Your task to perform on an android device: Add corsair k70 to the cart on ebay, then select checkout. Image 0: 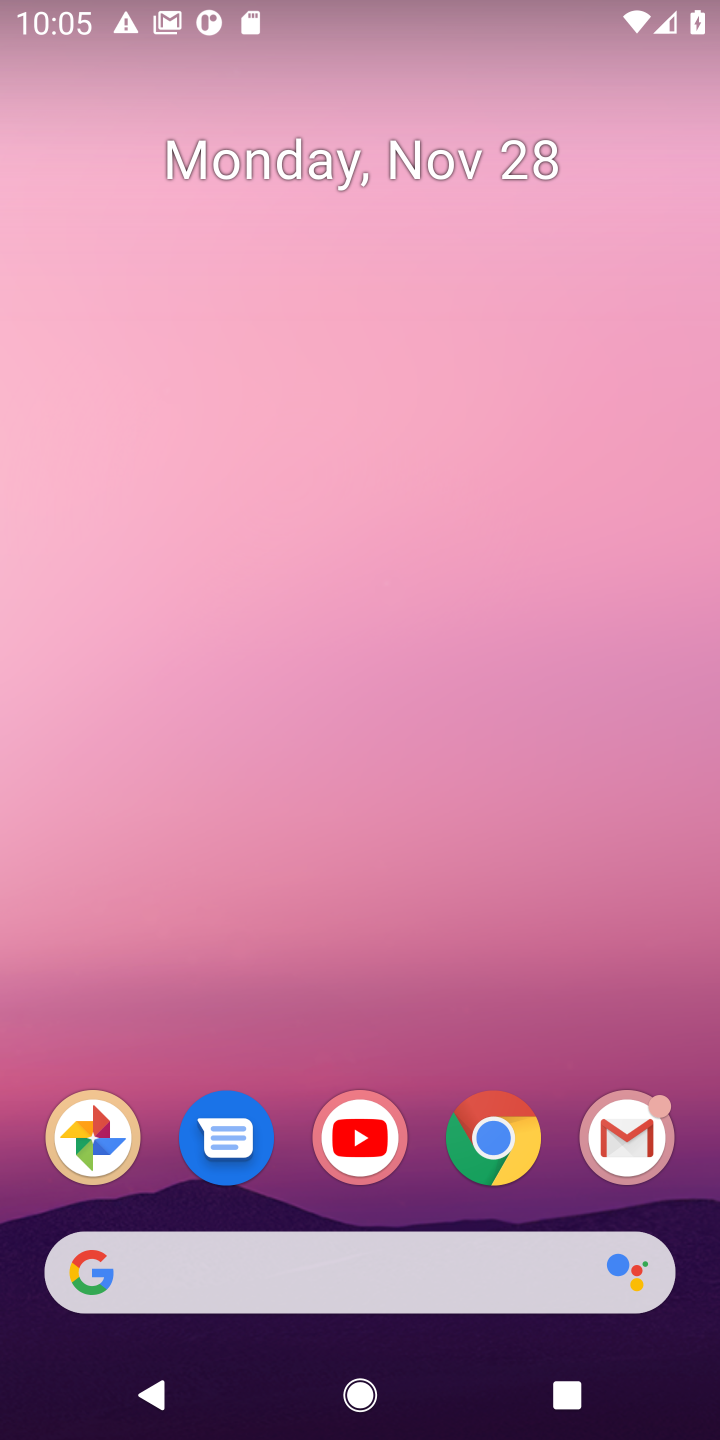
Step 0: click (501, 1153)
Your task to perform on an android device: Add corsair k70 to the cart on ebay, then select checkout. Image 1: 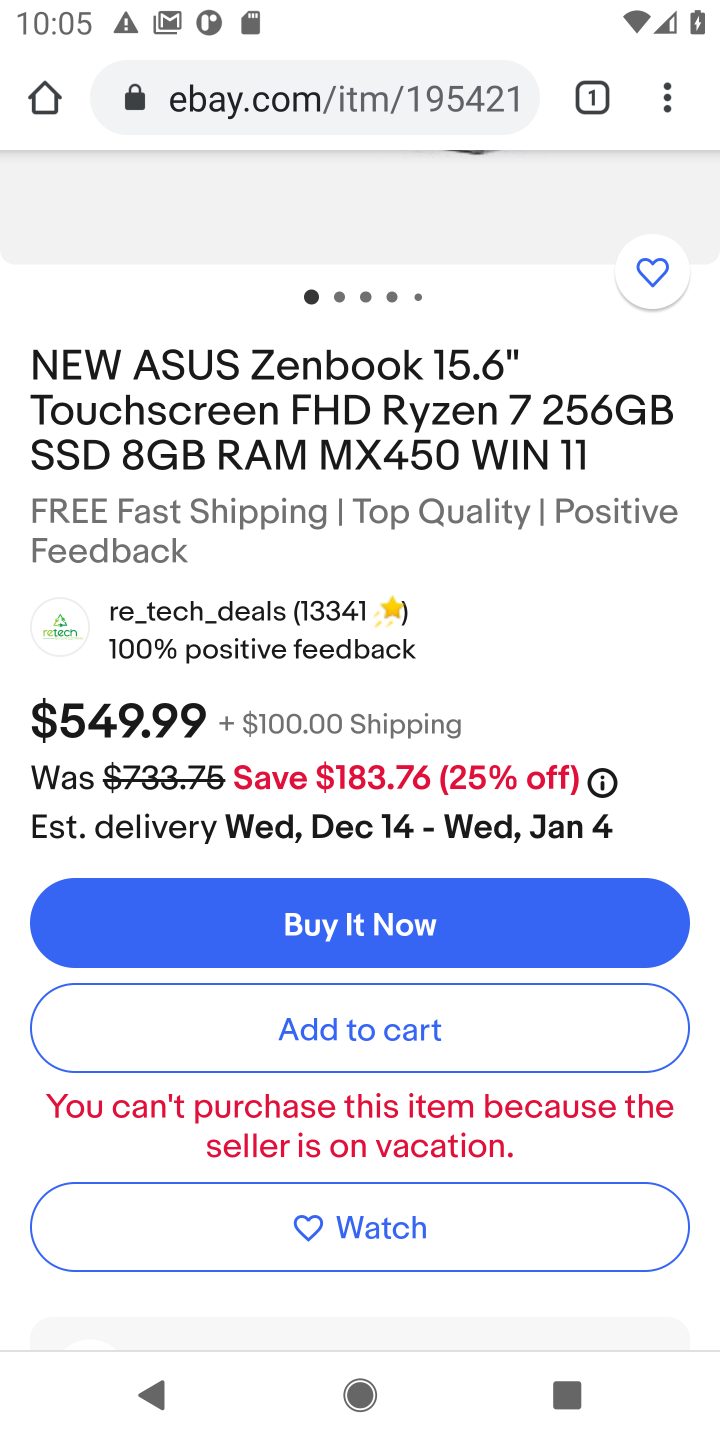
Step 1: drag from (590, 165) to (578, 686)
Your task to perform on an android device: Add corsair k70 to the cart on ebay, then select checkout. Image 2: 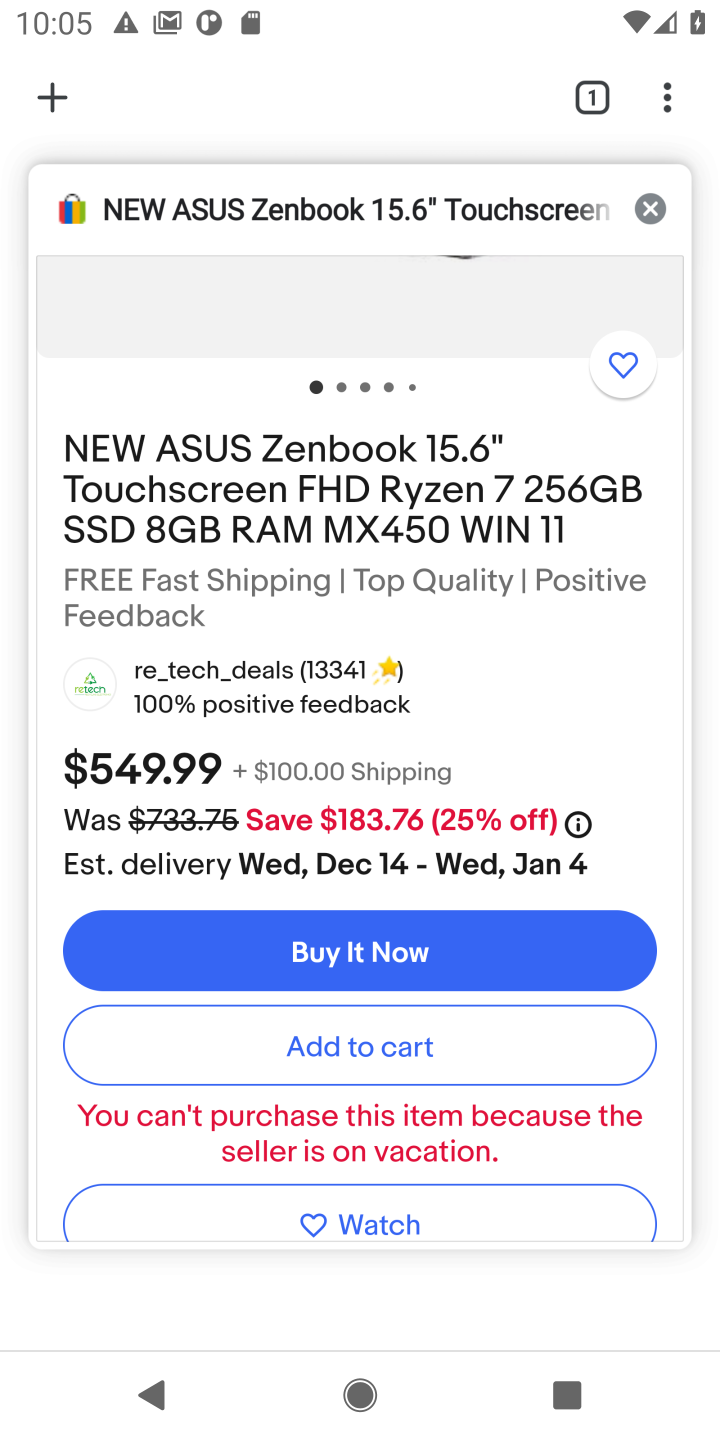
Step 2: drag from (573, 633) to (523, 351)
Your task to perform on an android device: Add corsair k70 to the cart on ebay, then select checkout. Image 3: 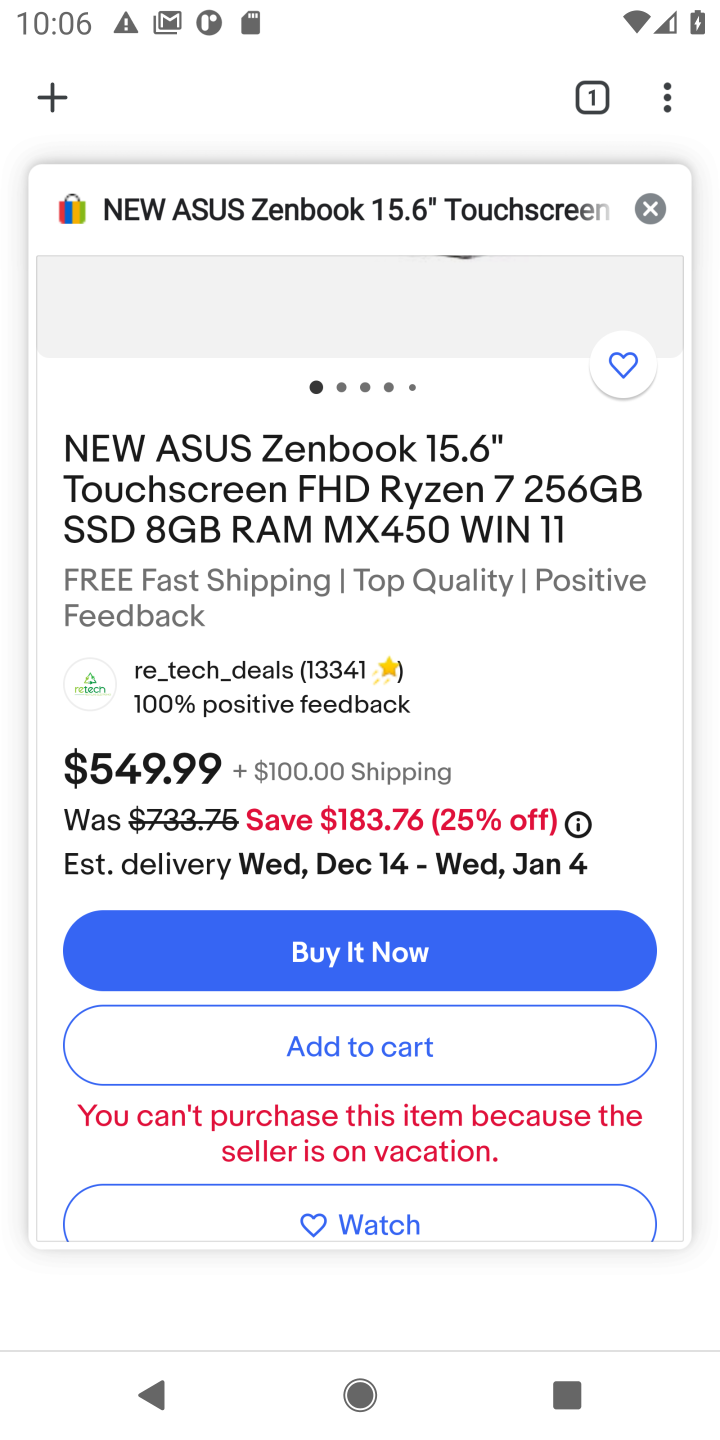
Step 3: click (653, 203)
Your task to perform on an android device: Add corsair k70 to the cart on ebay, then select checkout. Image 4: 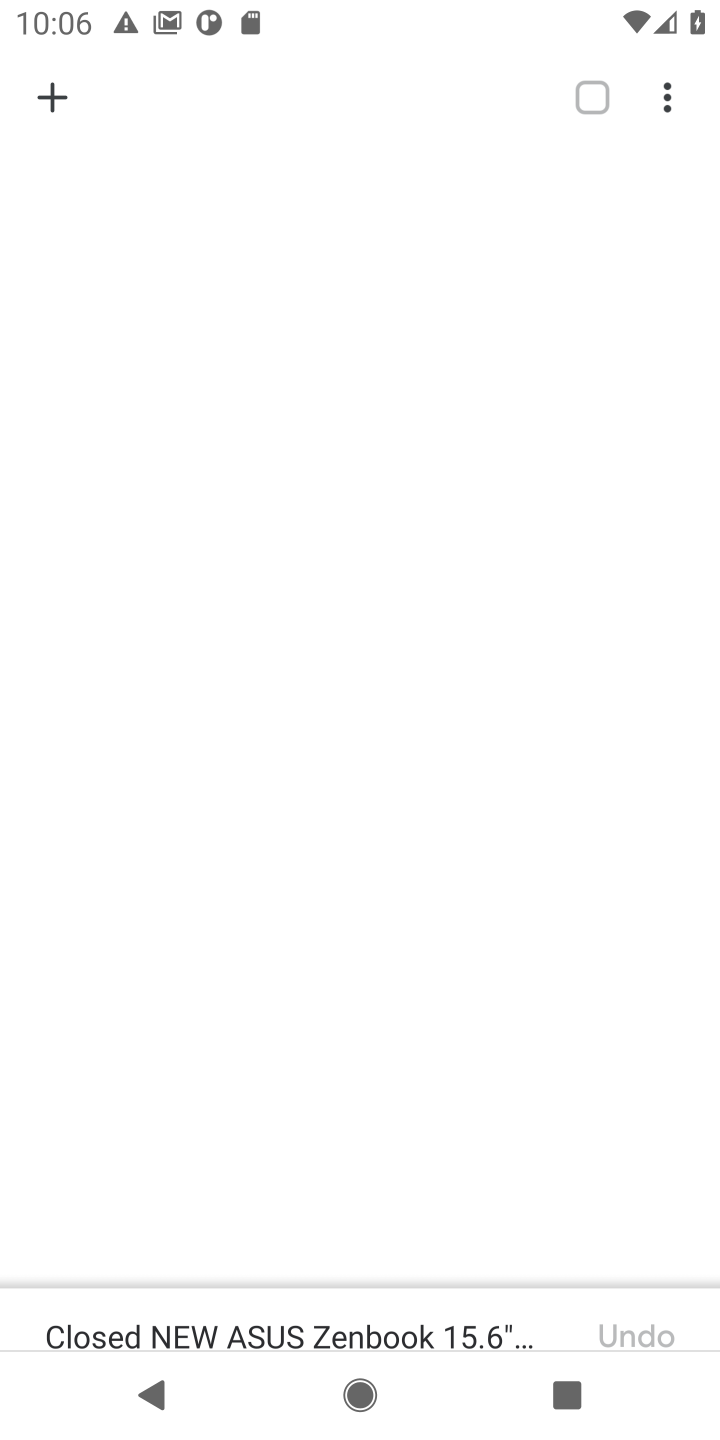
Step 4: click (63, 99)
Your task to perform on an android device: Add corsair k70 to the cart on ebay, then select checkout. Image 5: 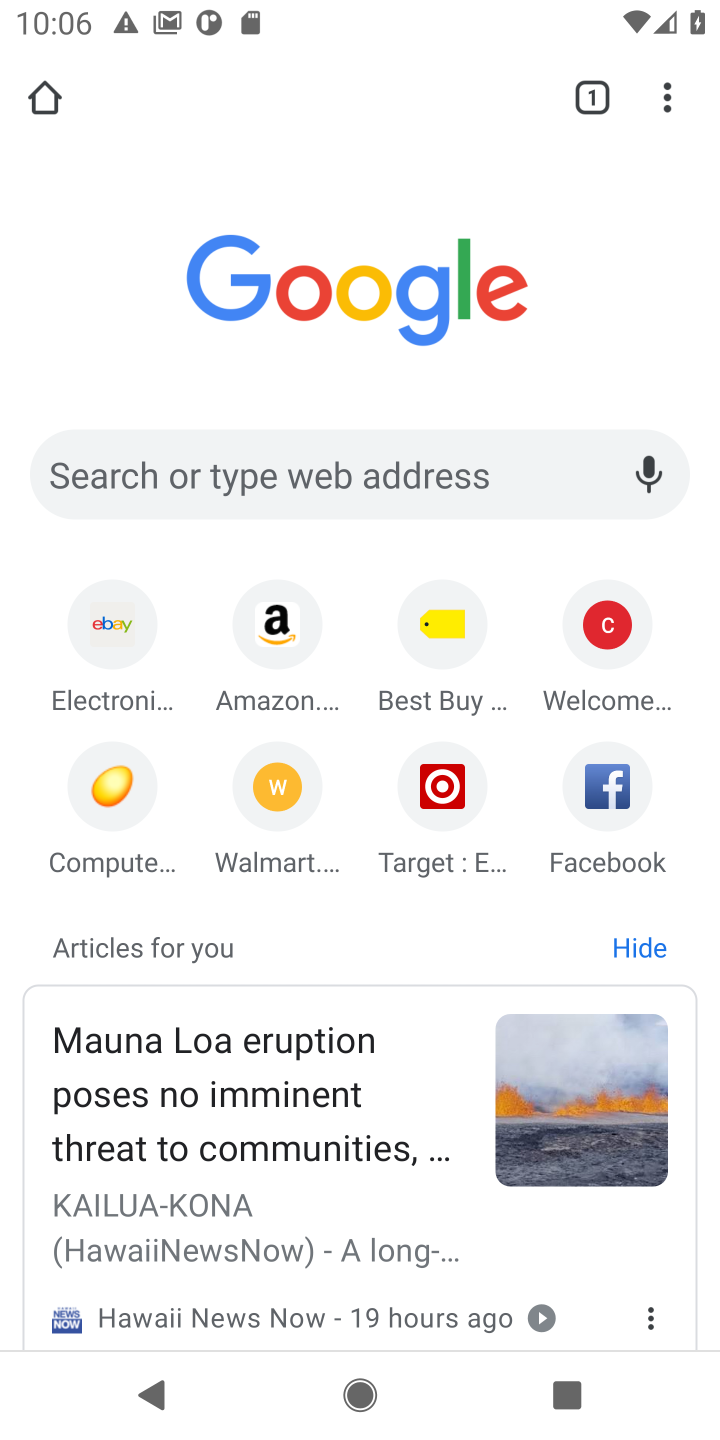
Step 5: click (248, 468)
Your task to perform on an android device: Add corsair k70 to the cart on ebay, then select checkout. Image 6: 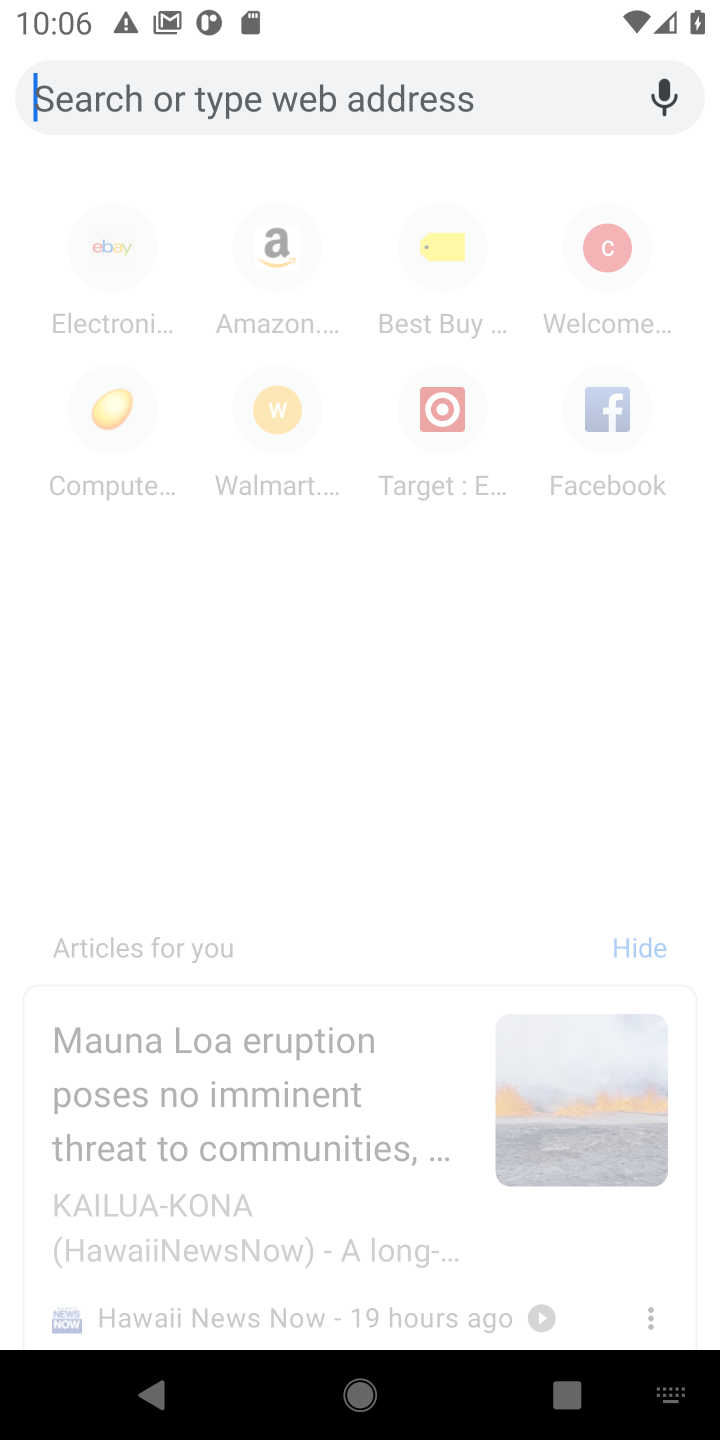
Step 6: click (115, 245)
Your task to perform on an android device: Add corsair k70 to the cart on ebay, then select checkout. Image 7: 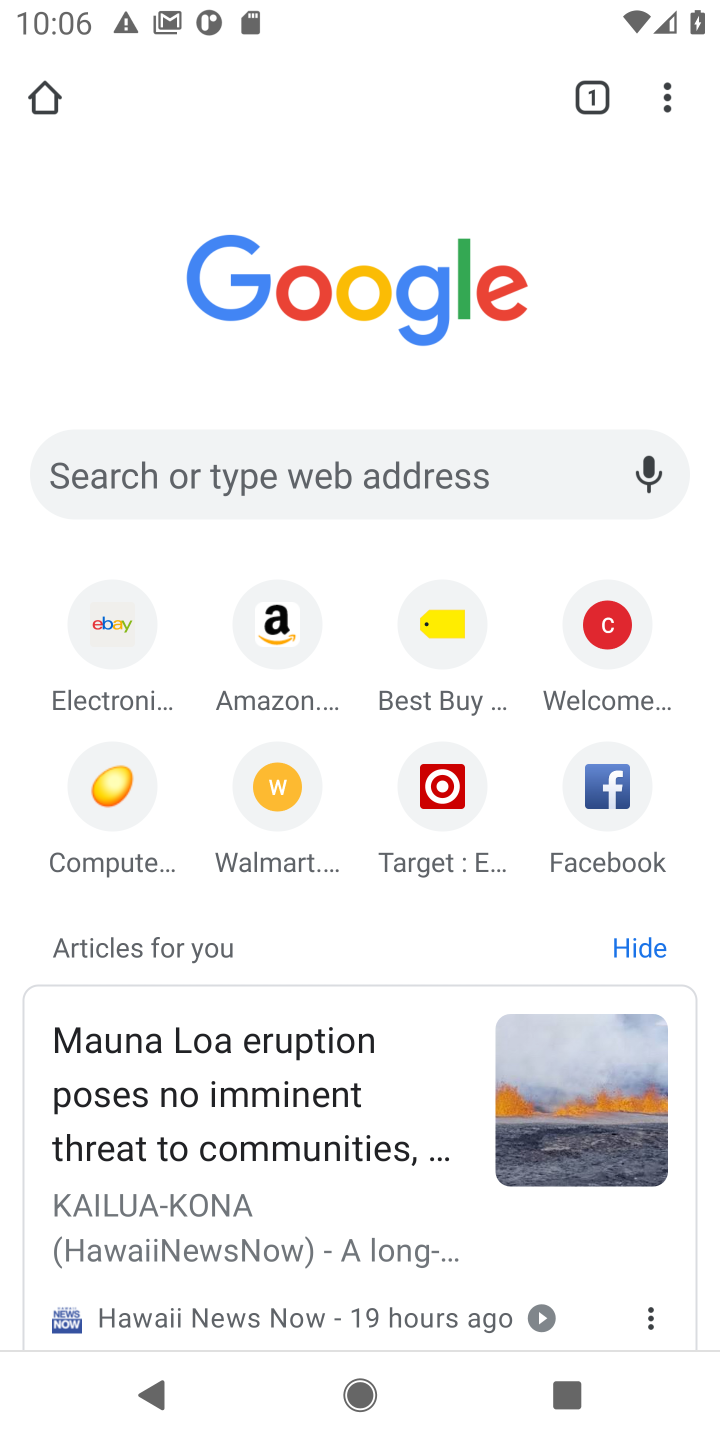
Step 7: click (110, 619)
Your task to perform on an android device: Add corsair k70 to the cart on ebay, then select checkout. Image 8: 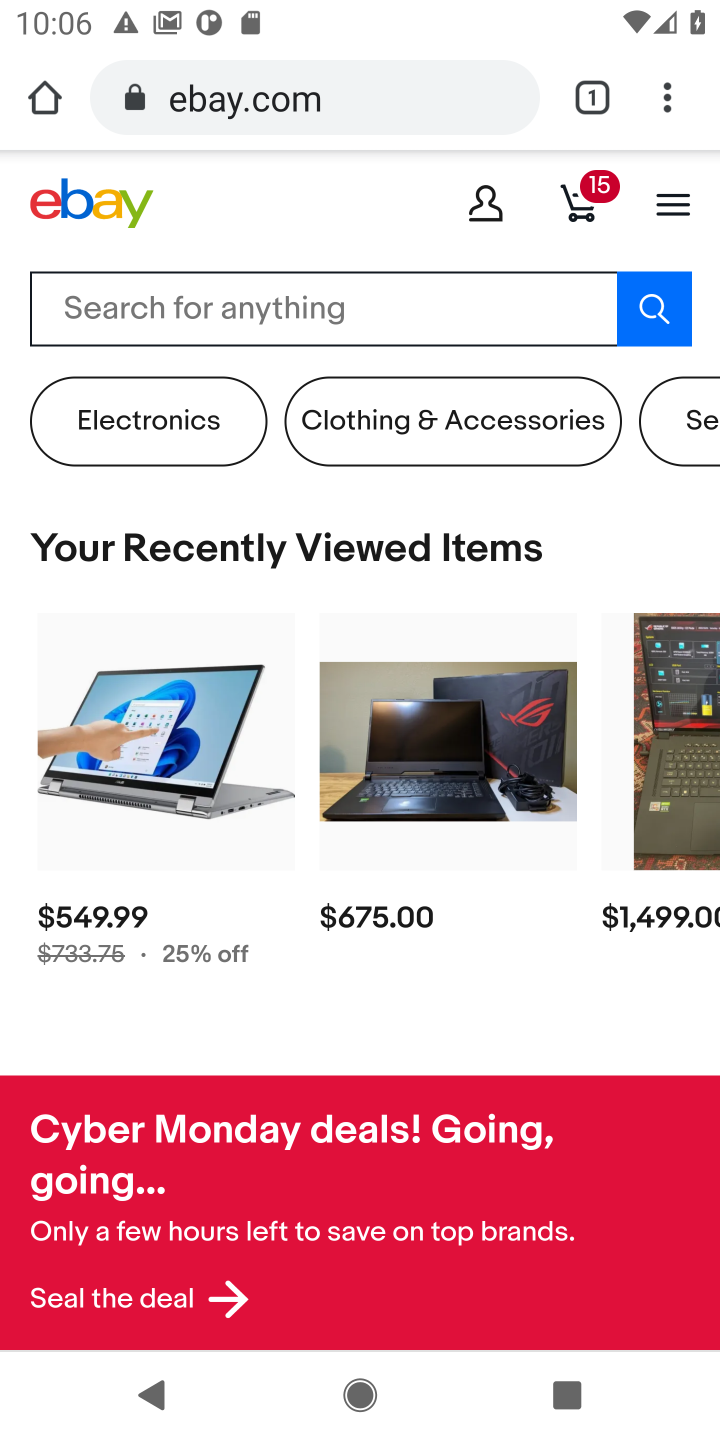
Step 8: click (167, 290)
Your task to perform on an android device: Add corsair k70 to the cart on ebay, then select checkout. Image 9: 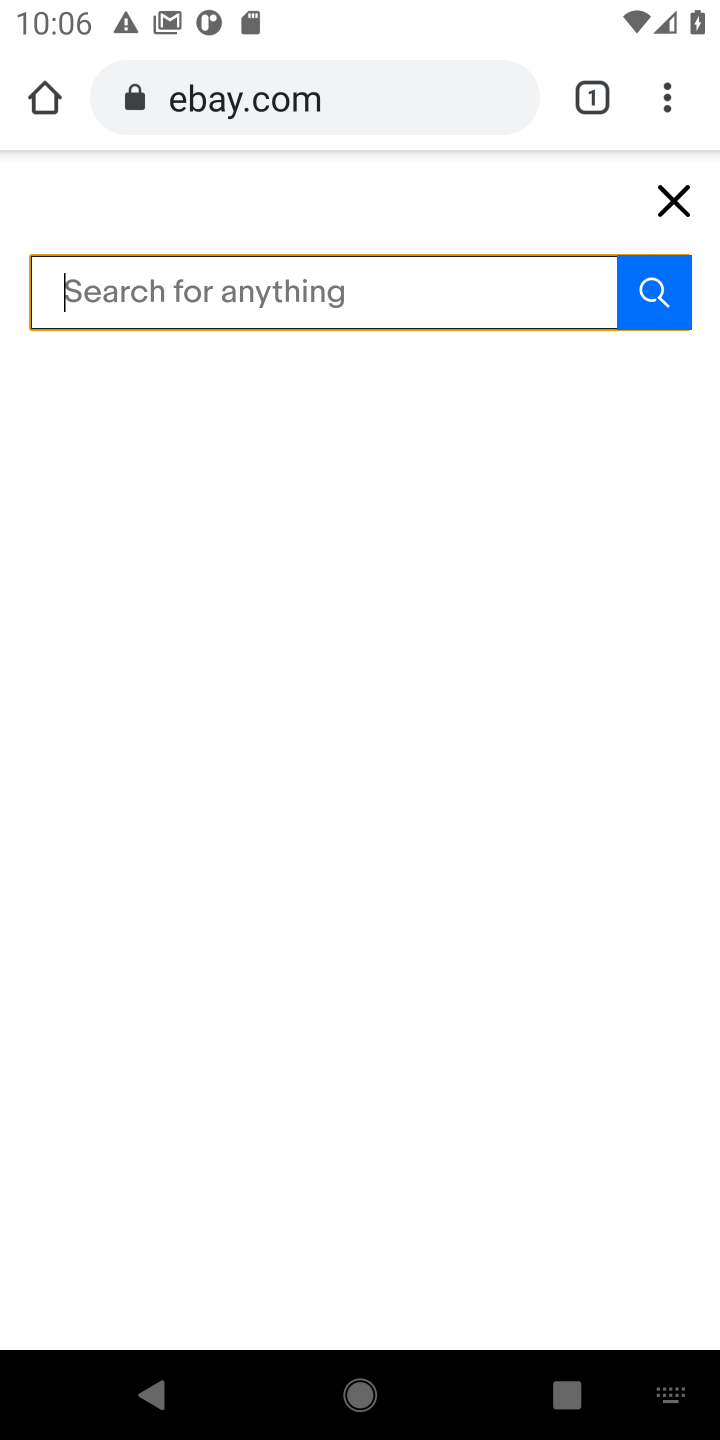
Step 9: type "corsair k70"
Your task to perform on an android device: Add corsair k70 to the cart on ebay, then select checkout. Image 10: 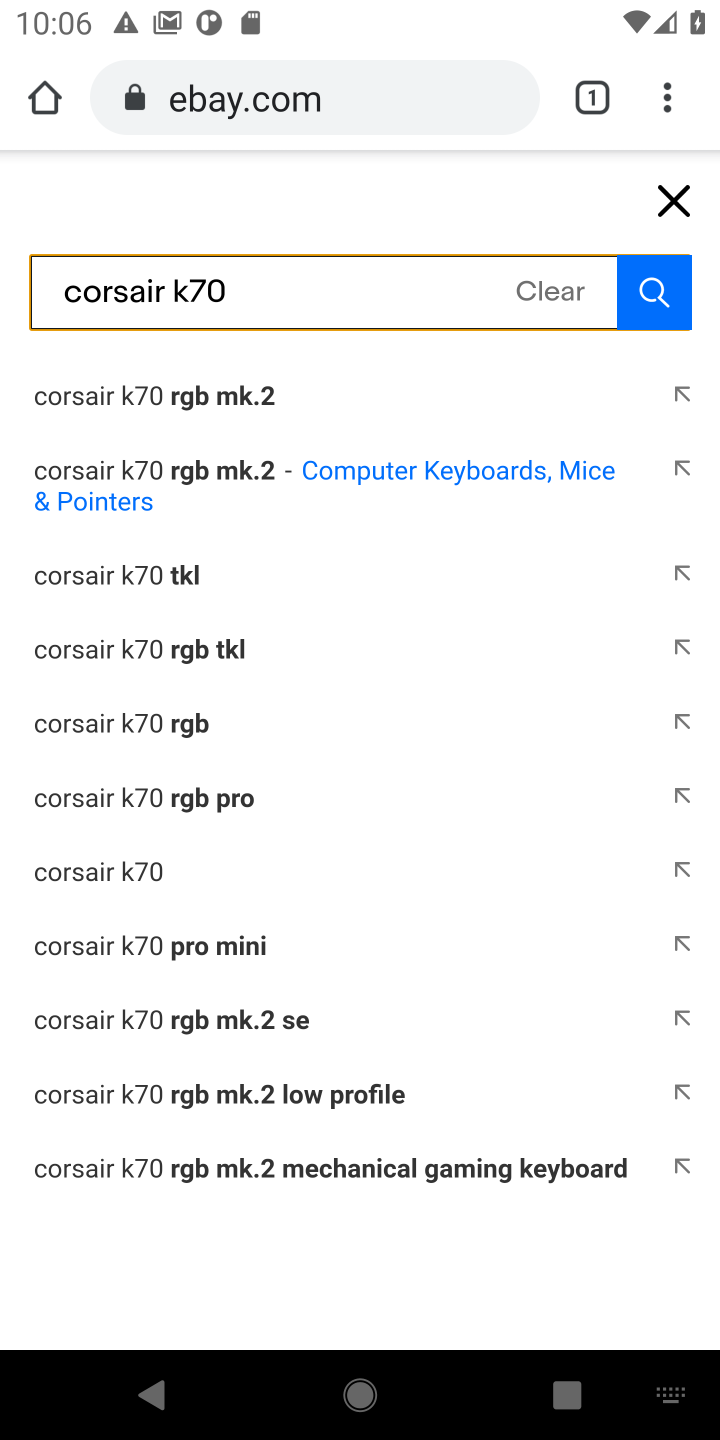
Step 10: click (91, 867)
Your task to perform on an android device: Add corsair k70 to the cart on ebay, then select checkout. Image 11: 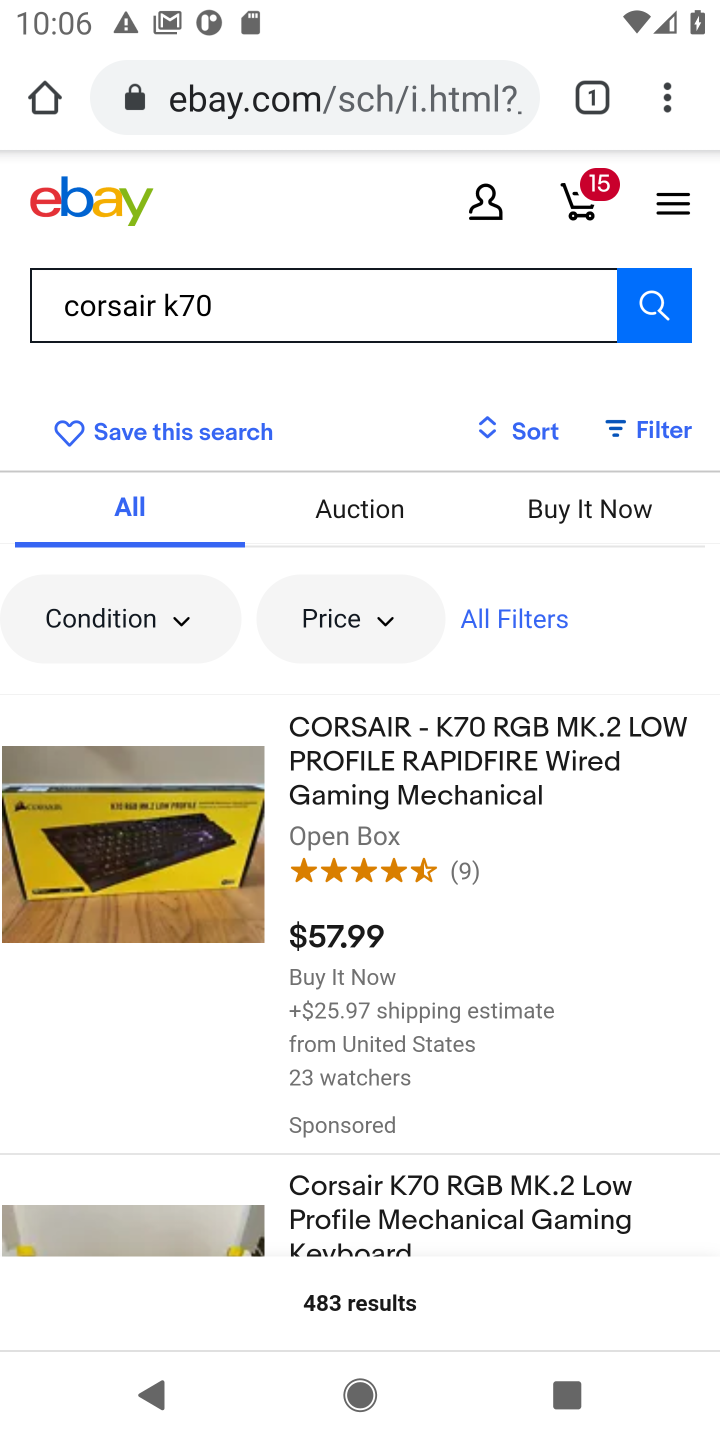
Step 11: click (397, 792)
Your task to perform on an android device: Add corsair k70 to the cart on ebay, then select checkout. Image 12: 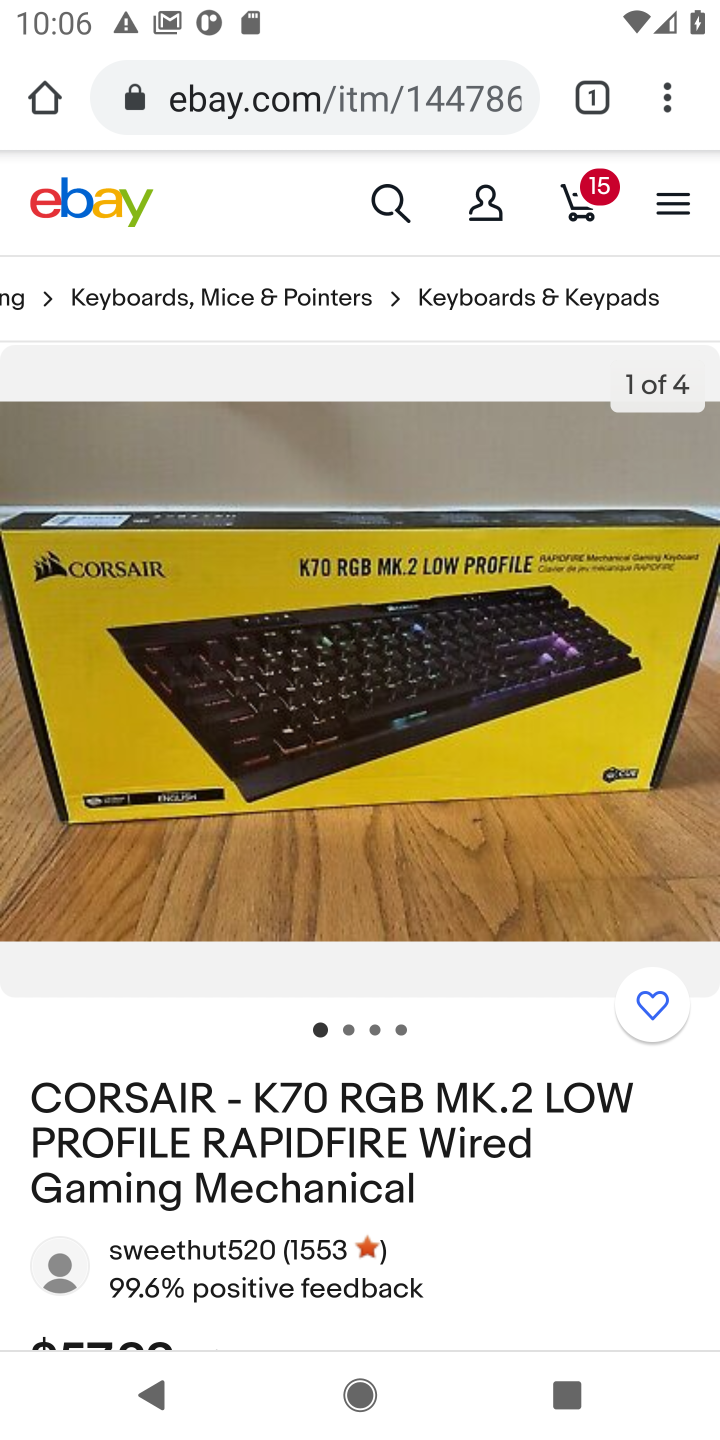
Step 12: drag from (627, 1049) to (585, 465)
Your task to perform on an android device: Add corsair k70 to the cart on ebay, then select checkout. Image 13: 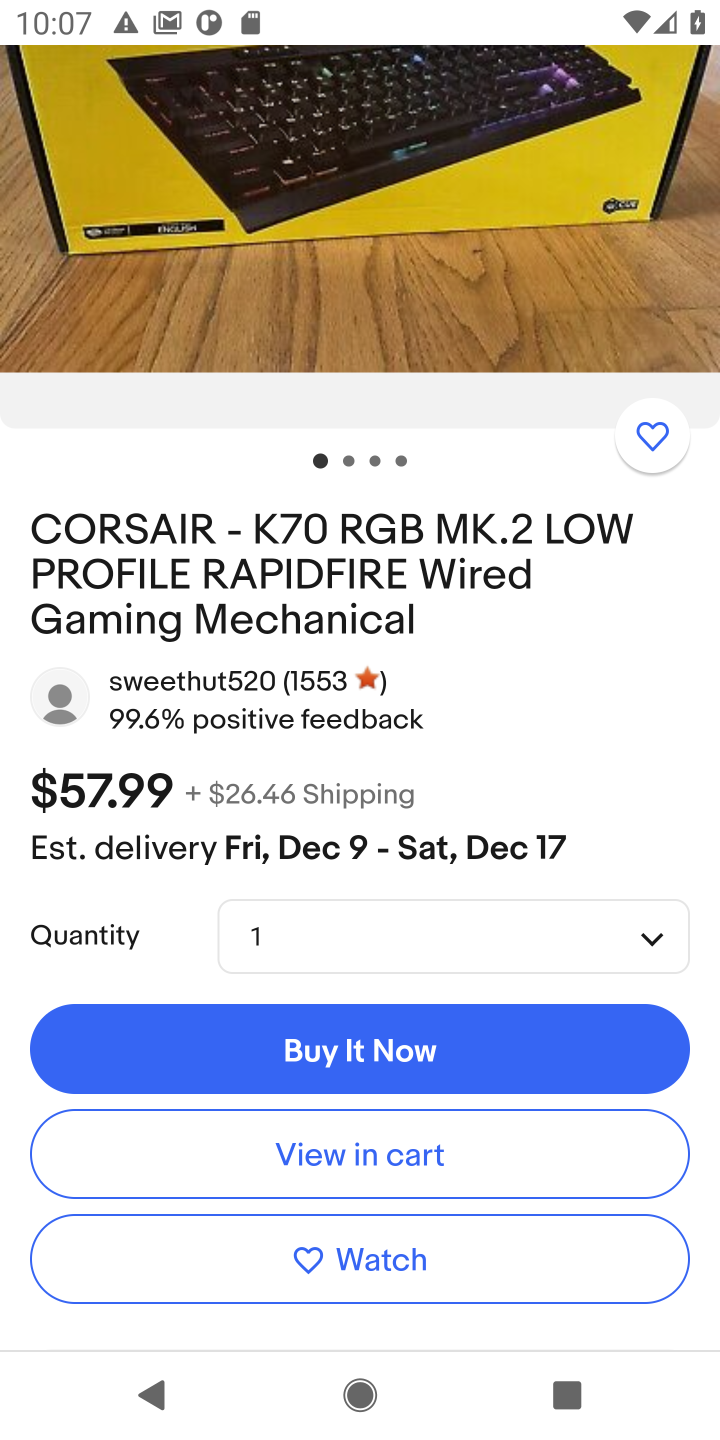
Step 13: click (353, 1157)
Your task to perform on an android device: Add corsair k70 to the cart on ebay, then select checkout. Image 14: 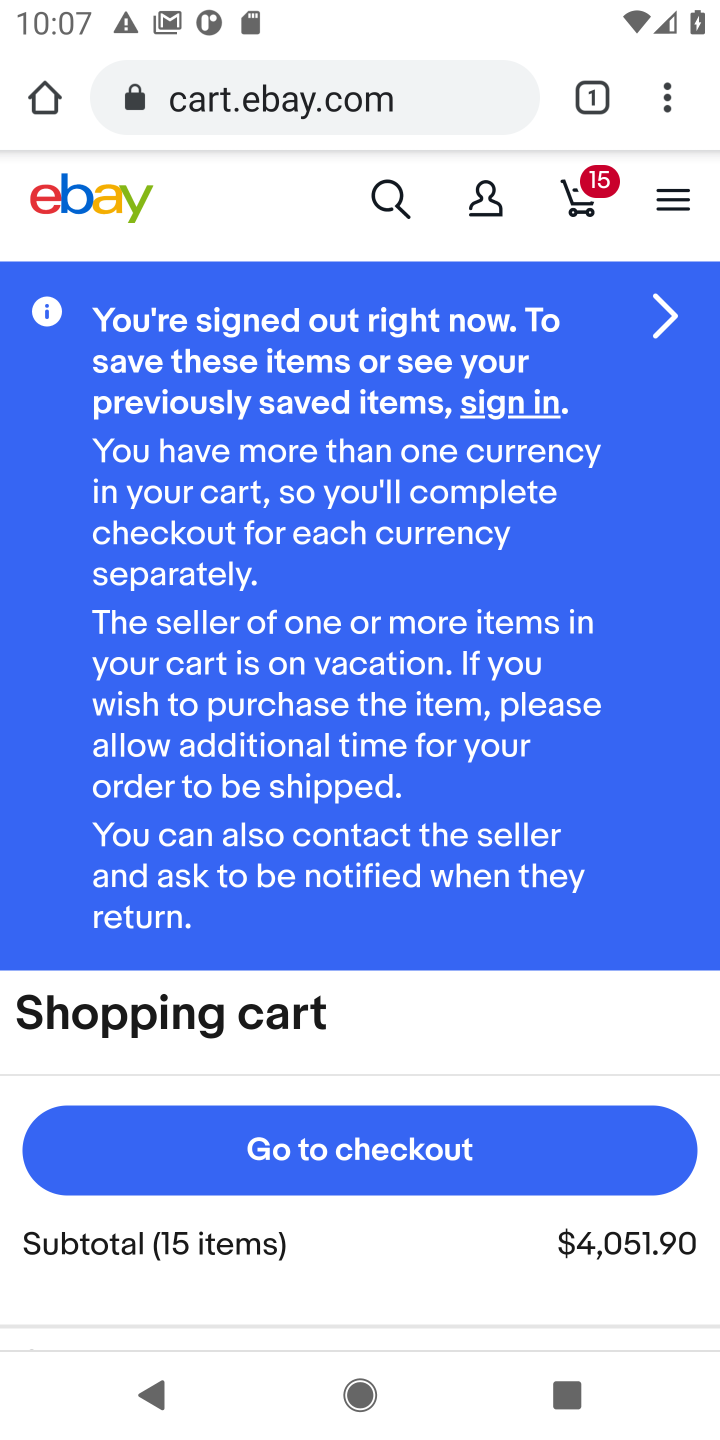
Step 14: click (353, 1154)
Your task to perform on an android device: Add corsair k70 to the cart on ebay, then select checkout. Image 15: 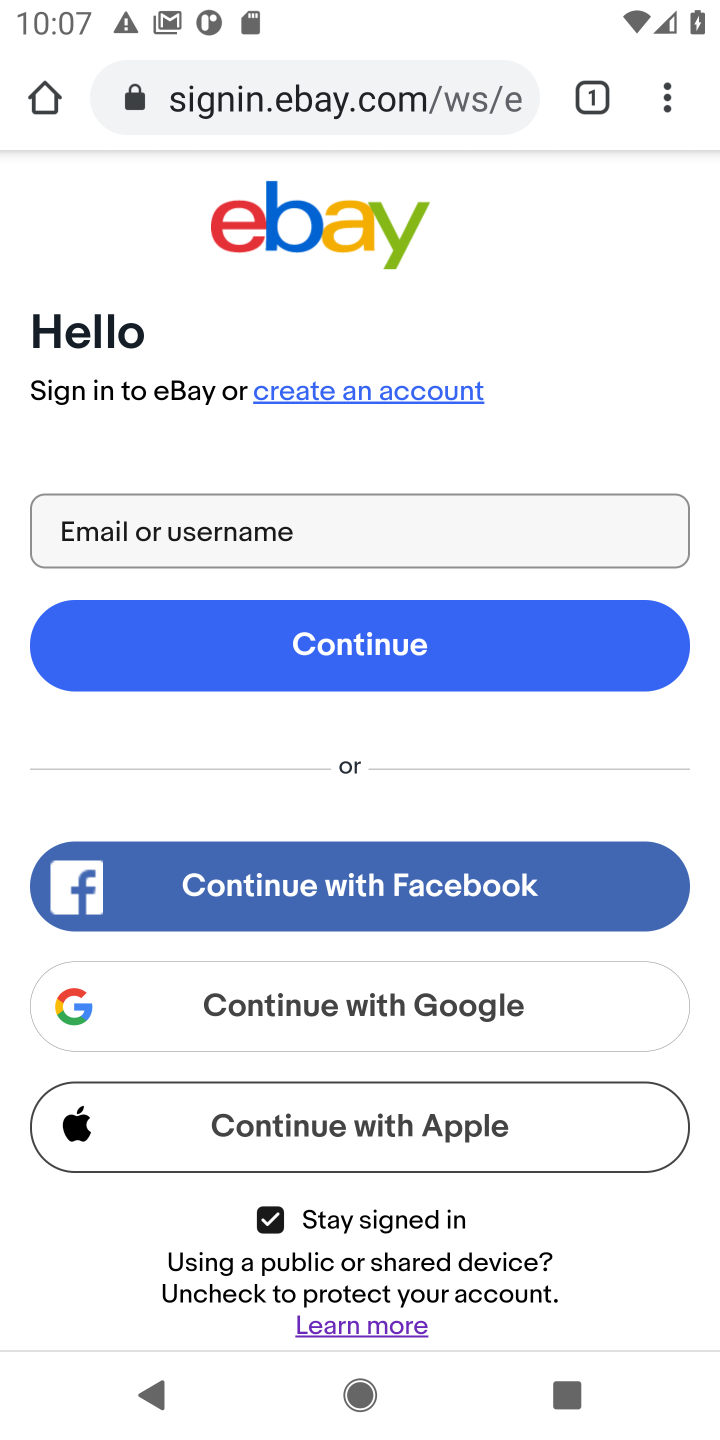
Step 15: task complete